Your task to perform on an android device: empty trash in google photos Image 0: 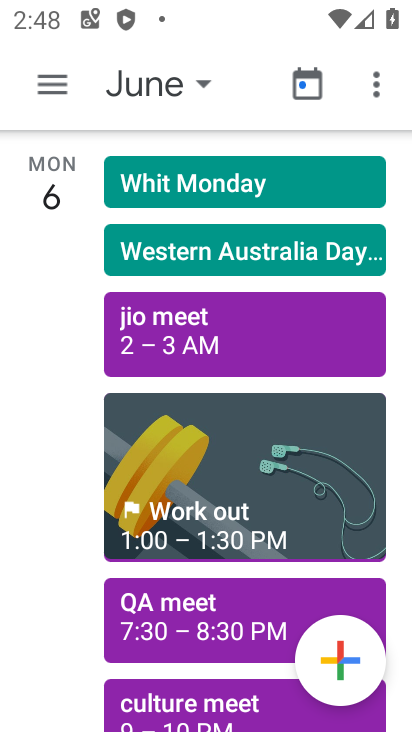
Step 0: press home button
Your task to perform on an android device: empty trash in google photos Image 1: 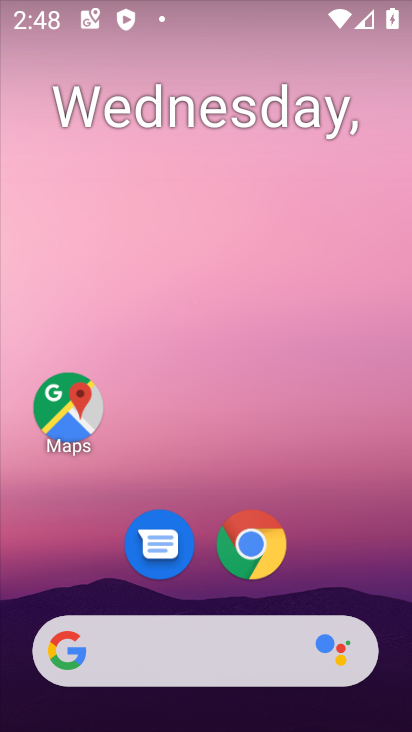
Step 1: drag from (393, 596) to (331, 219)
Your task to perform on an android device: empty trash in google photos Image 2: 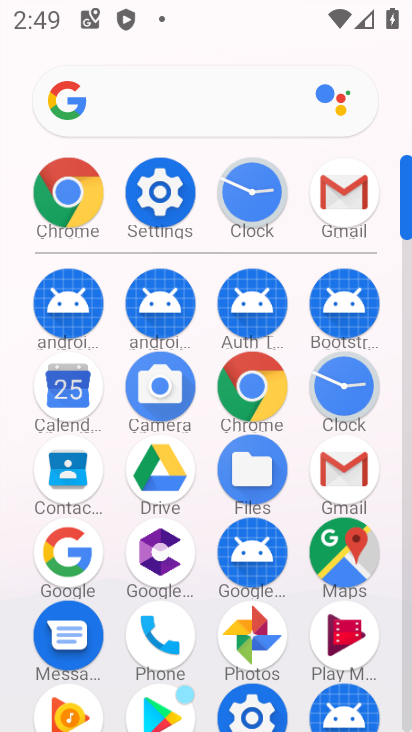
Step 2: click (261, 643)
Your task to perform on an android device: empty trash in google photos Image 3: 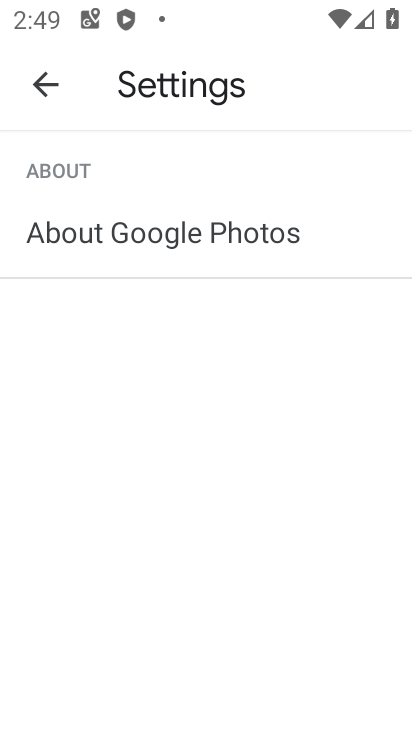
Step 3: click (57, 85)
Your task to perform on an android device: empty trash in google photos Image 4: 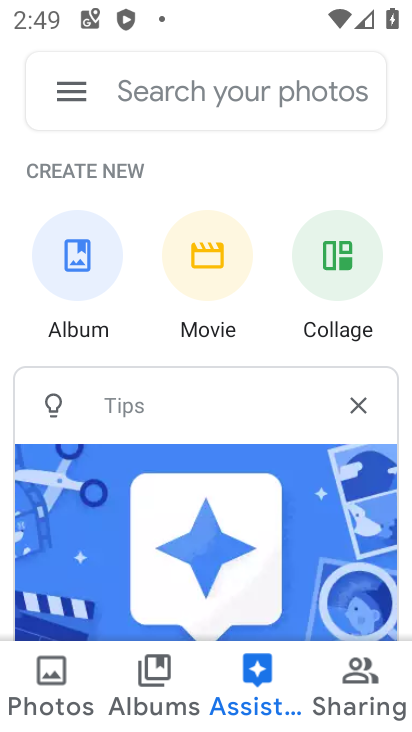
Step 4: click (64, 86)
Your task to perform on an android device: empty trash in google photos Image 5: 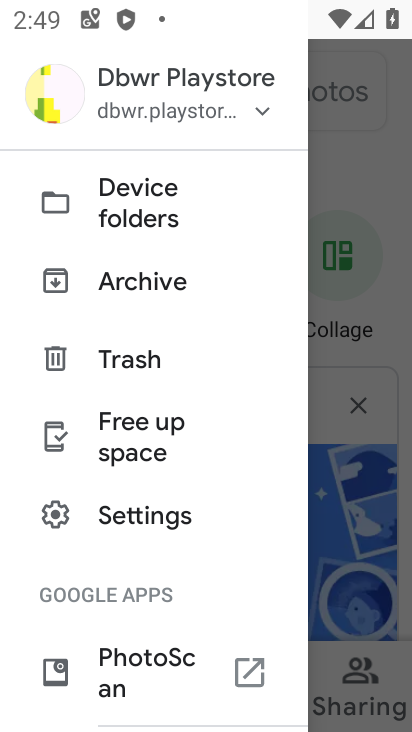
Step 5: click (127, 352)
Your task to perform on an android device: empty trash in google photos Image 6: 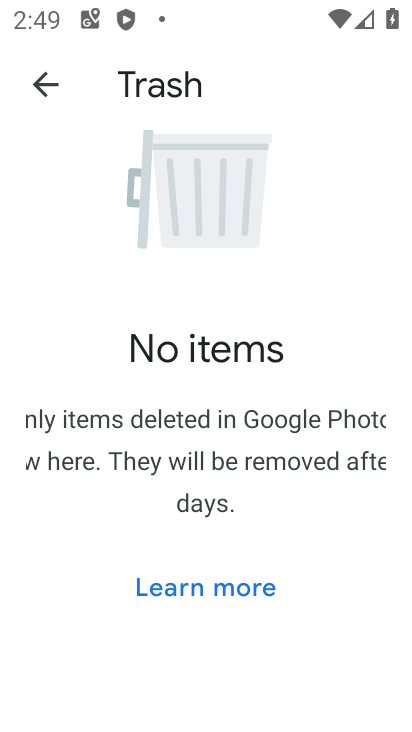
Step 6: task complete